Your task to perform on an android device: Search for seafood restaurants on Google Maps Image 0: 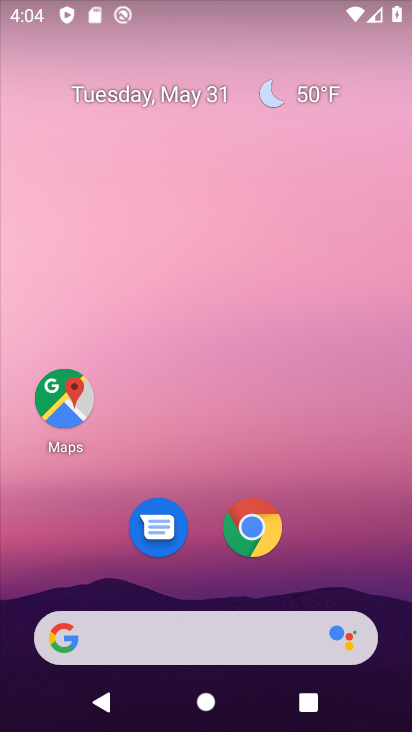
Step 0: click (75, 391)
Your task to perform on an android device: Search for seafood restaurants on Google Maps Image 1: 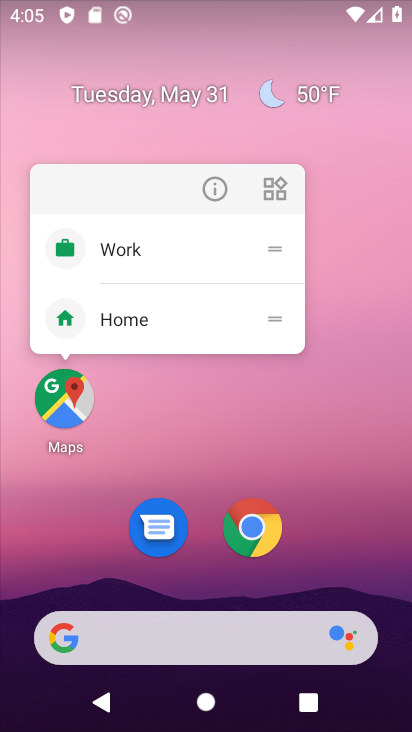
Step 1: click (67, 403)
Your task to perform on an android device: Search for seafood restaurants on Google Maps Image 2: 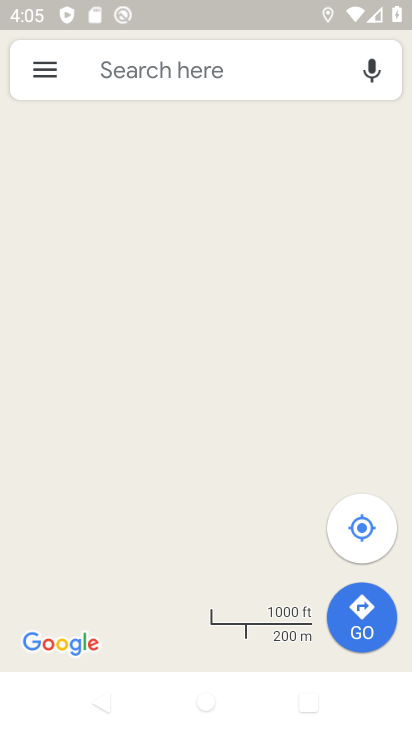
Step 2: click (162, 69)
Your task to perform on an android device: Search for seafood restaurants on Google Maps Image 3: 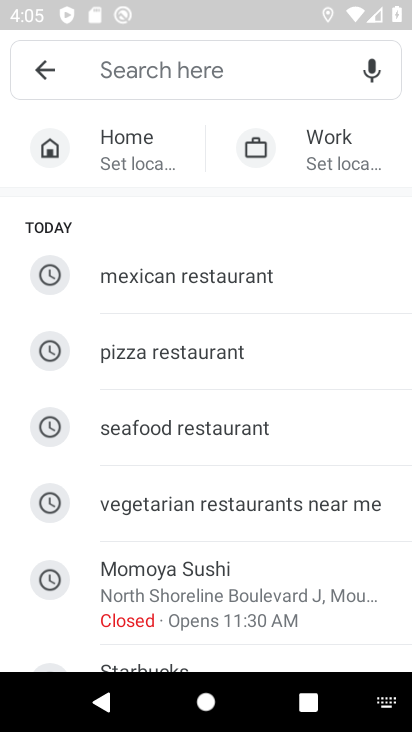
Step 3: type "seafood"
Your task to perform on an android device: Search for seafood restaurants on Google Maps Image 4: 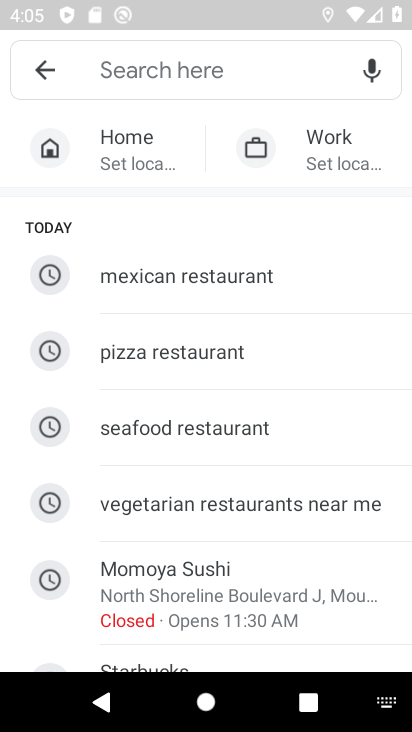
Step 4: click (216, 436)
Your task to perform on an android device: Search for seafood restaurants on Google Maps Image 5: 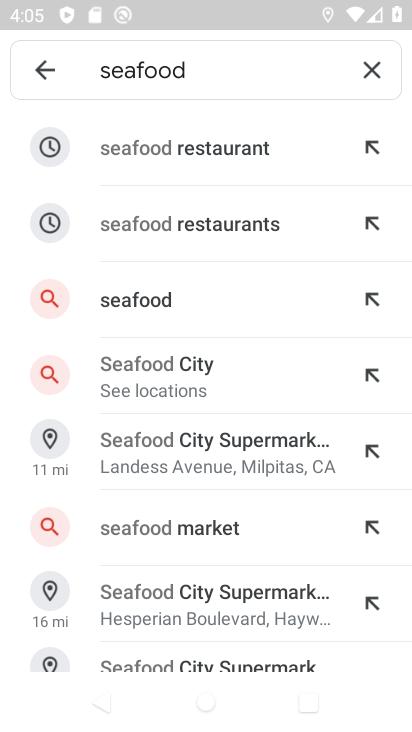
Step 5: click (175, 144)
Your task to perform on an android device: Search for seafood restaurants on Google Maps Image 6: 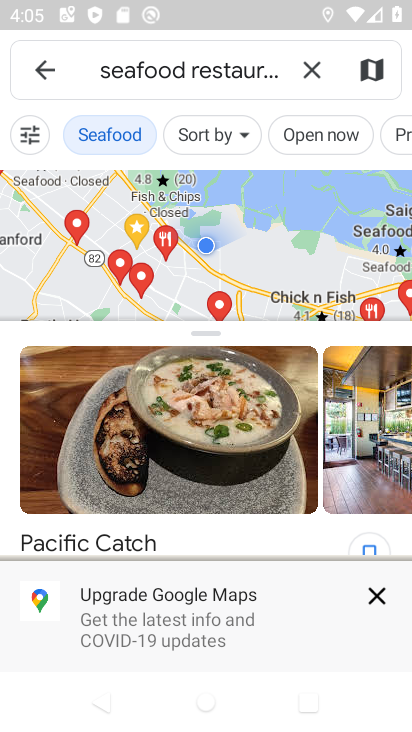
Step 6: task complete